Your task to perform on an android device: turn off picture-in-picture Image 0: 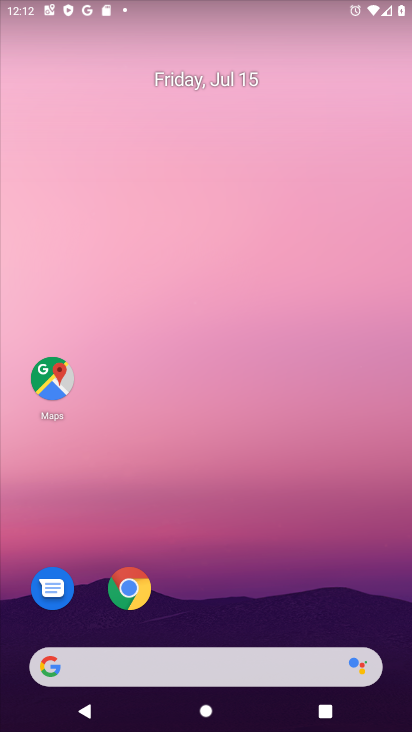
Step 0: press home button
Your task to perform on an android device: turn off picture-in-picture Image 1: 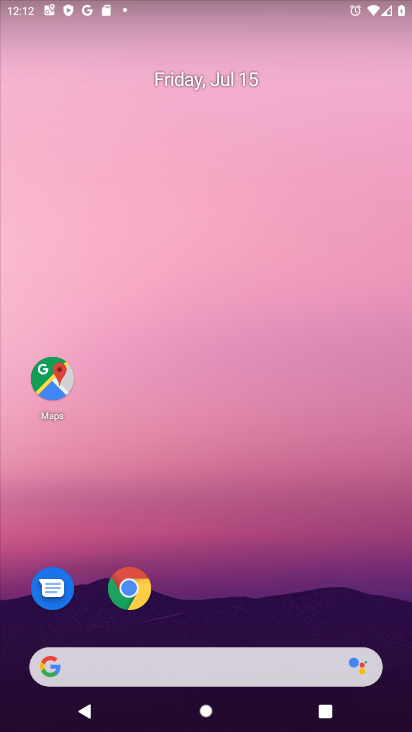
Step 1: click (129, 585)
Your task to perform on an android device: turn off picture-in-picture Image 2: 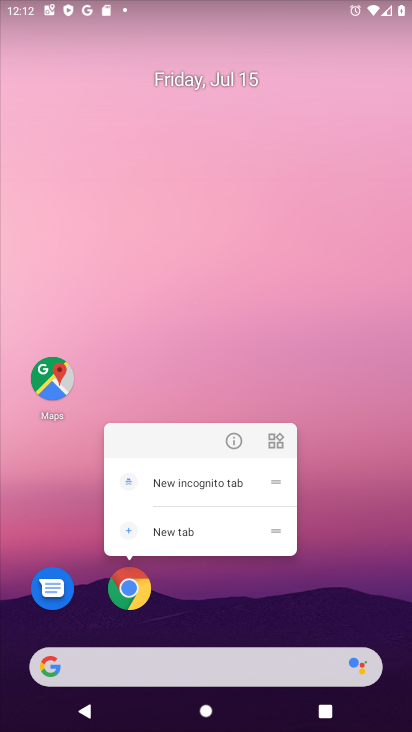
Step 2: click (228, 444)
Your task to perform on an android device: turn off picture-in-picture Image 3: 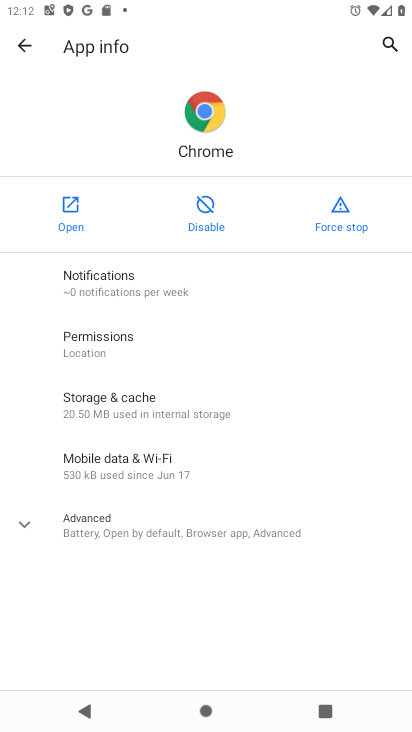
Step 3: click (101, 518)
Your task to perform on an android device: turn off picture-in-picture Image 4: 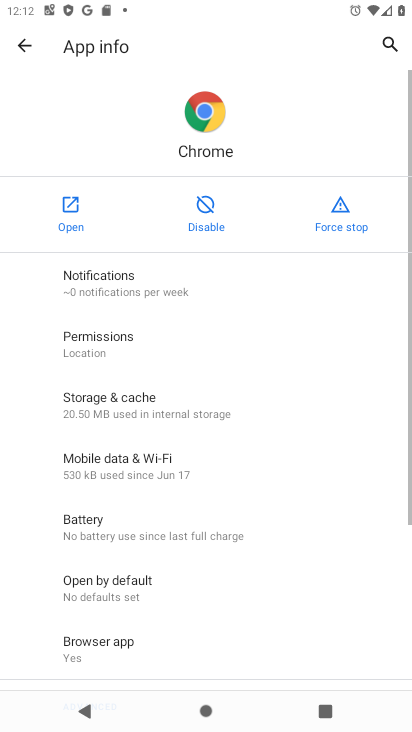
Step 4: drag from (232, 632) to (336, 79)
Your task to perform on an android device: turn off picture-in-picture Image 5: 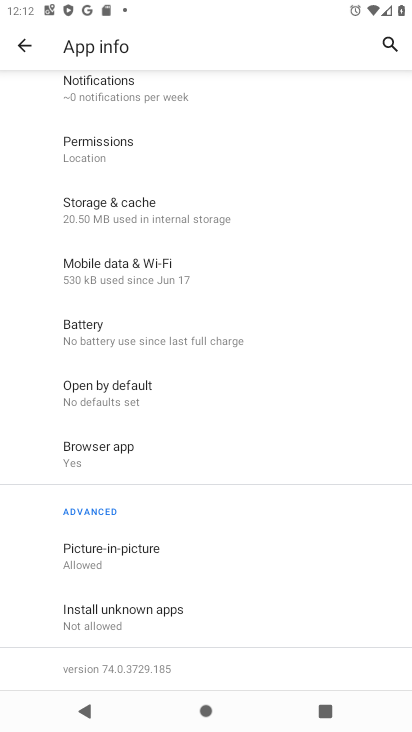
Step 5: click (119, 548)
Your task to perform on an android device: turn off picture-in-picture Image 6: 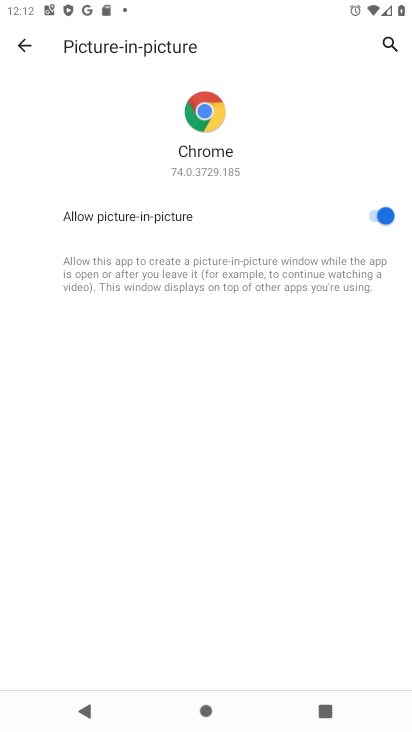
Step 6: click (370, 219)
Your task to perform on an android device: turn off picture-in-picture Image 7: 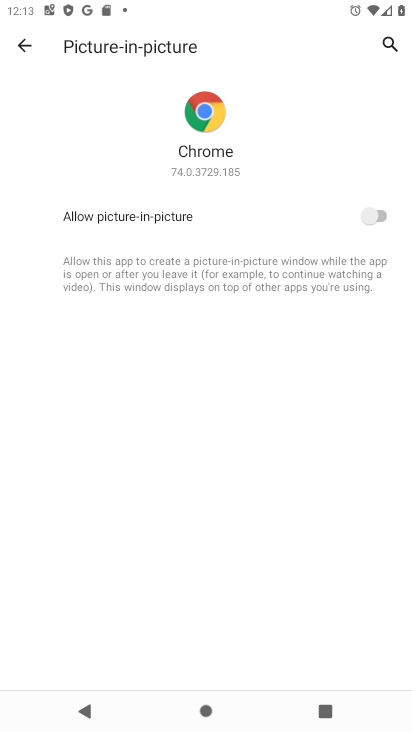
Step 7: task complete